Your task to perform on an android device: Play the new Ed Sheeran video on YouTube Image 0: 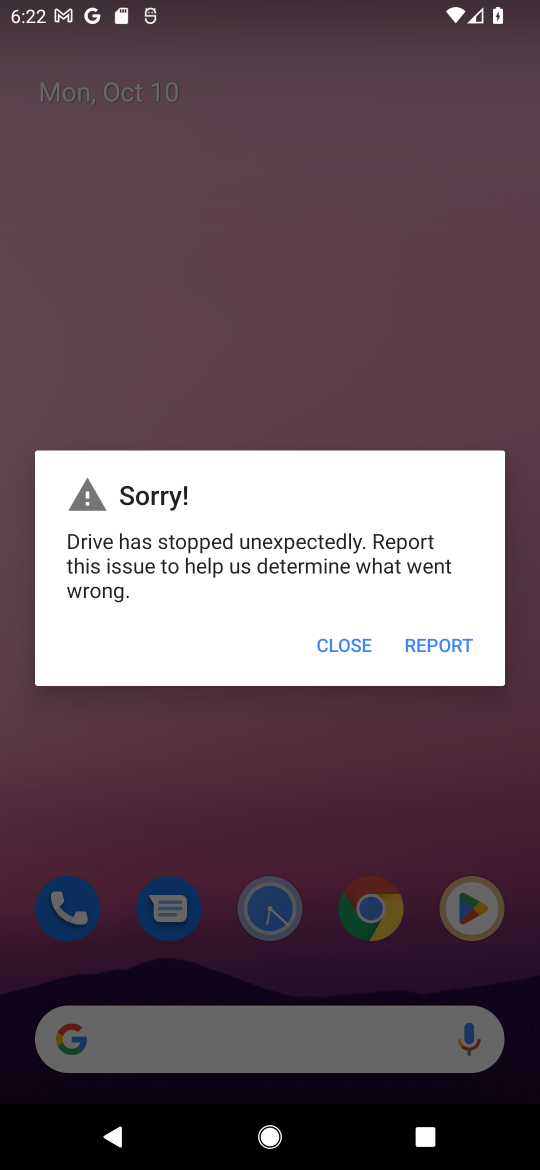
Step 0: press home button
Your task to perform on an android device: Play the new Ed Sheeran video on YouTube Image 1: 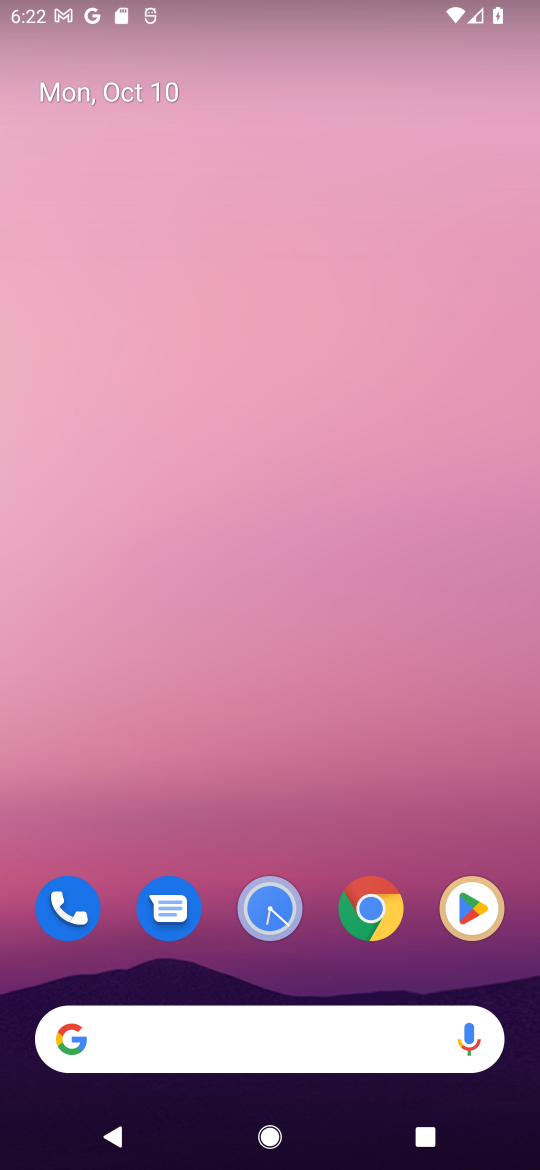
Step 1: drag from (316, 995) to (294, 21)
Your task to perform on an android device: Play the new Ed Sheeran video on YouTube Image 2: 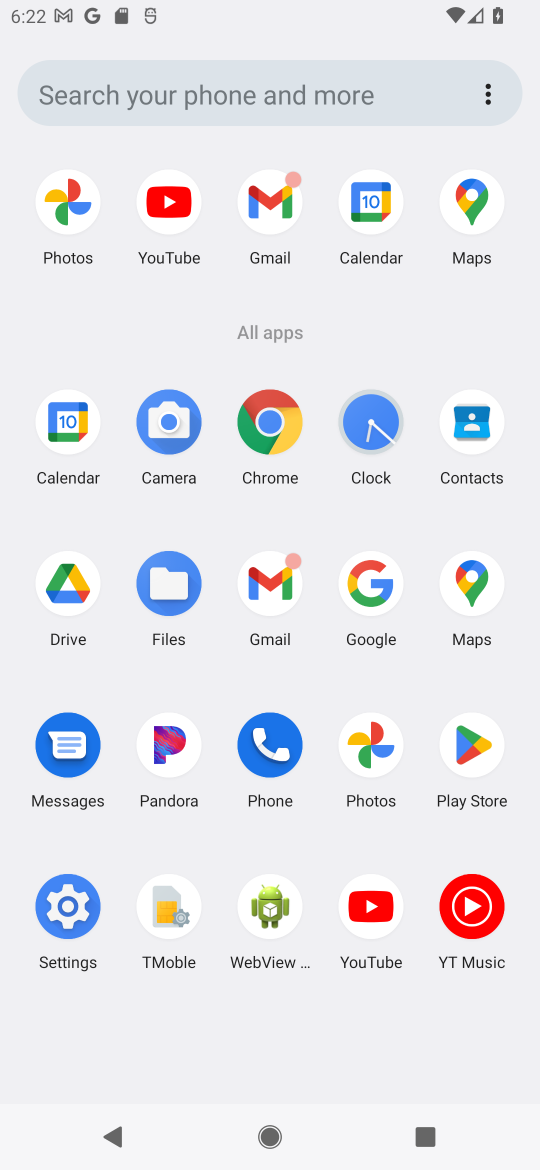
Step 2: click (165, 186)
Your task to perform on an android device: Play the new Ed Sheeran video on YouTube Image 3: 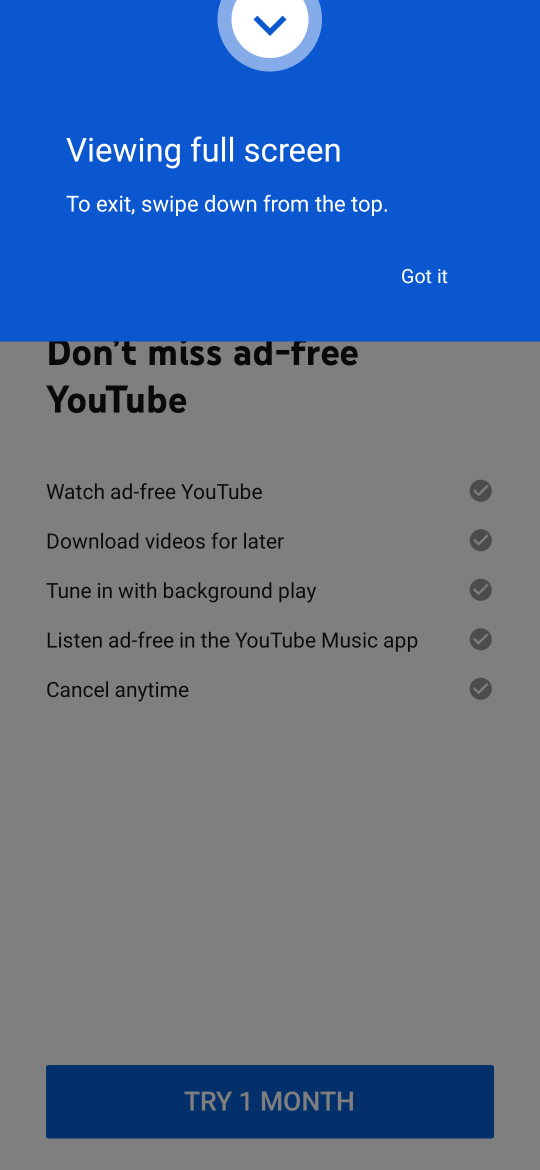
Step 3: press home button
Your task to perform on an android device: Play the new Ed Sheeran video on YouTube Image 4: 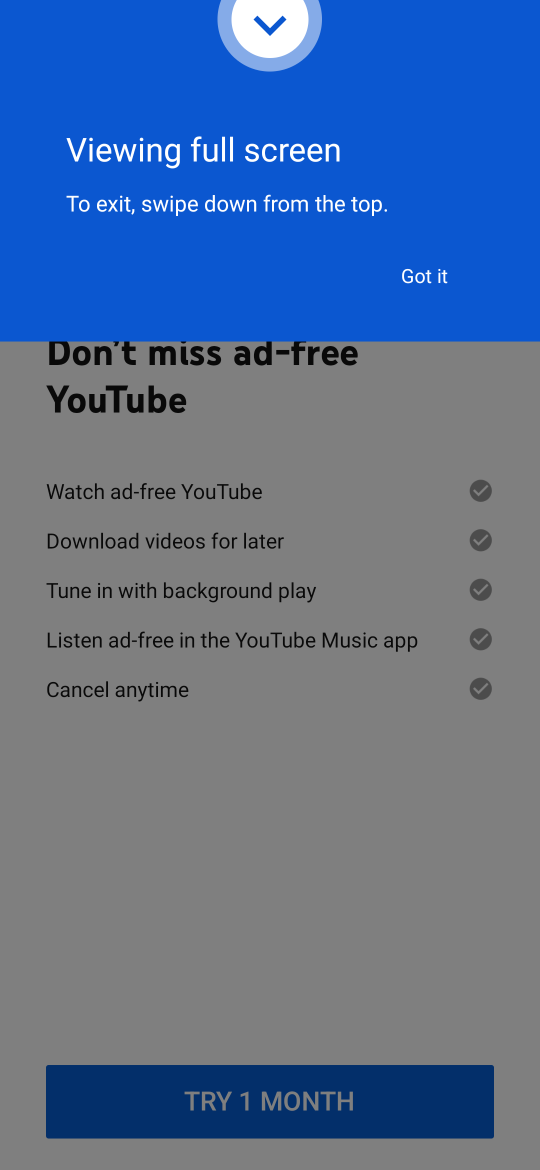
Step 4: press home button
Your task to perform on an android device: Play the new Ed Sheeran video on YouTube Image 5: 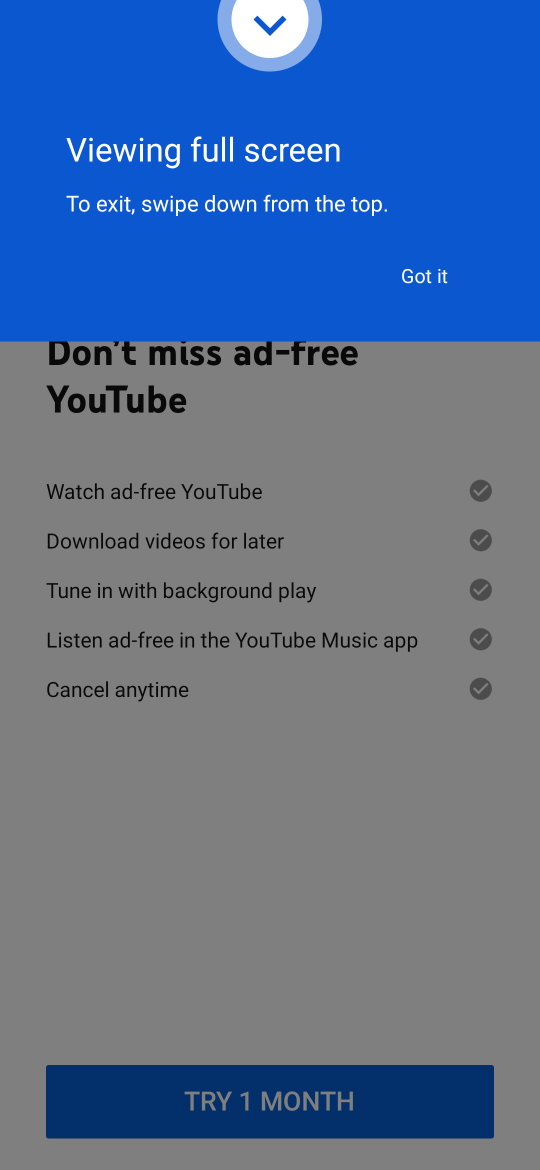
Step 5: press home button
Your task to perform on an android device: Play the new Ed Sheeran video on YouTube Image 6: 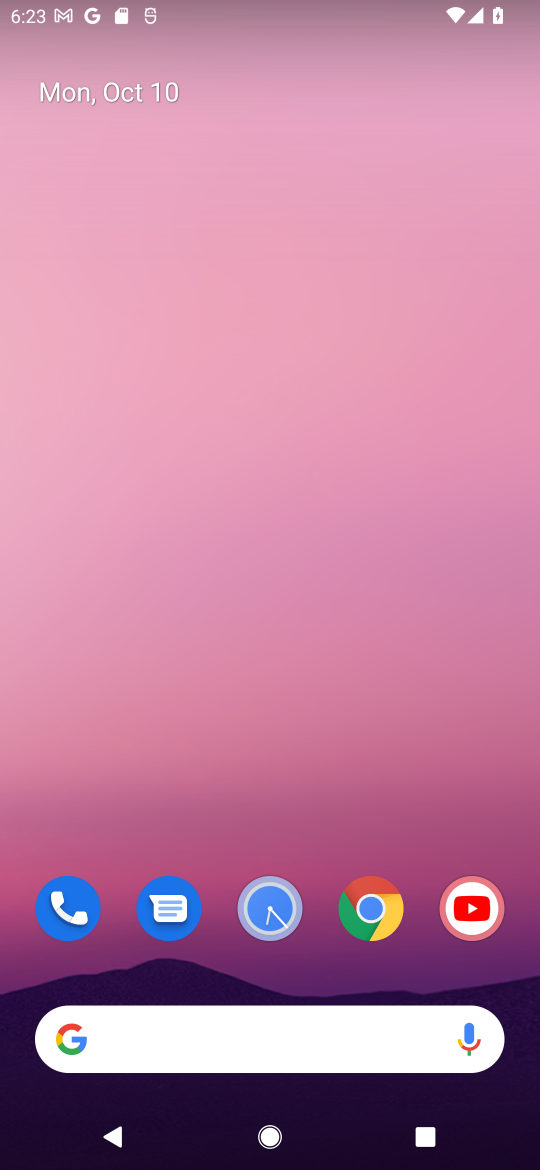
Step 6: drag from (328, 990) to (411, 9)
Your task to perform on an android device: Play the new Ed Sheeran video on YouTube Image 7: 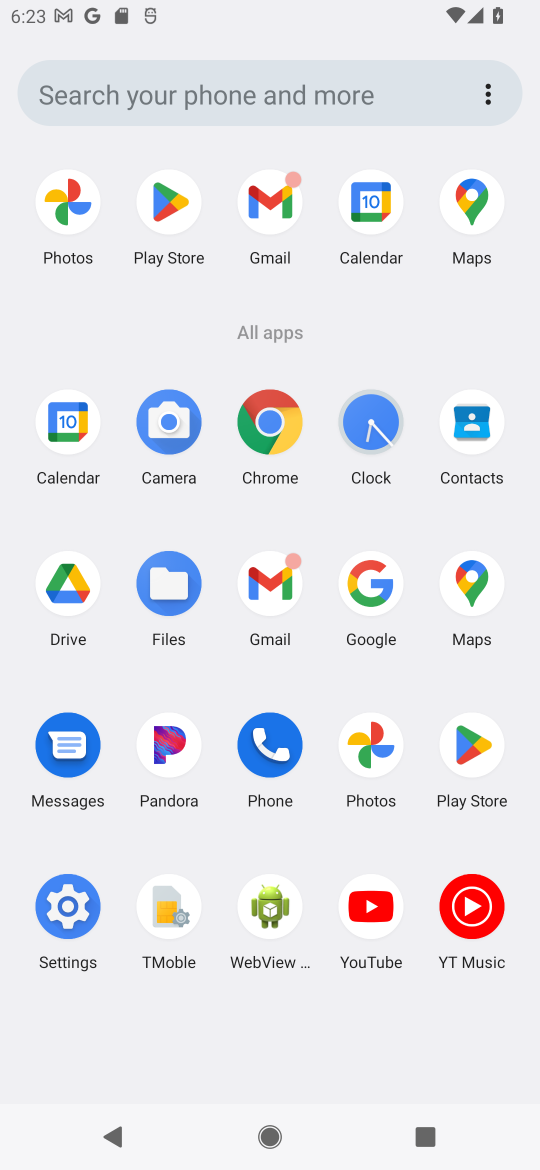
Step 7: click (382, 883)
Your task to perform on an android device: Play the new Ed Sheeran video on YouTube Image 8: 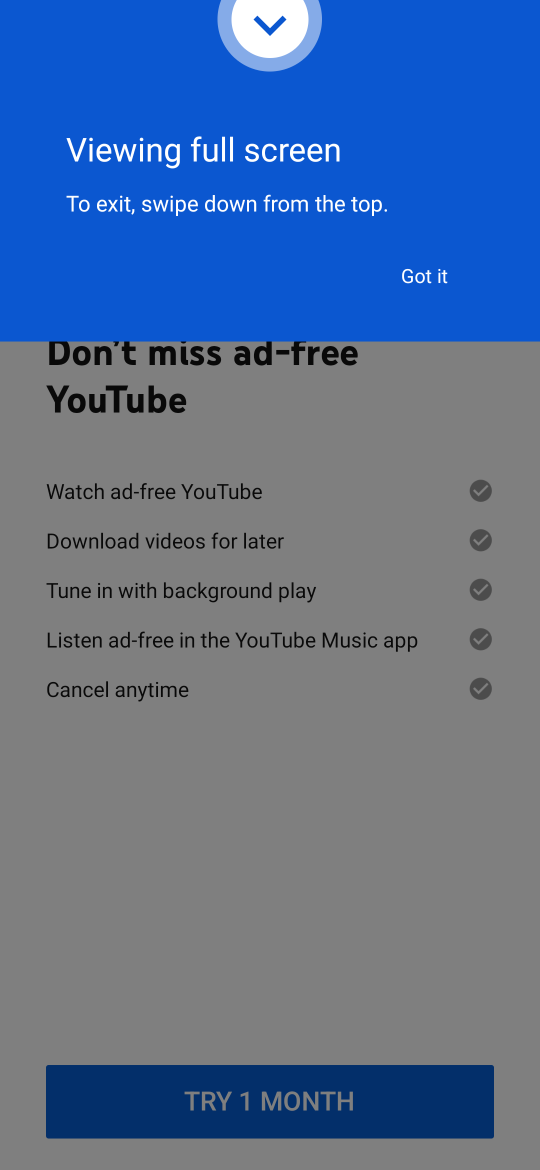
Step 8: click (422, 287)
Your task to perform on an android device: Play the new Ed Sheeran video on YouTube Image 9: 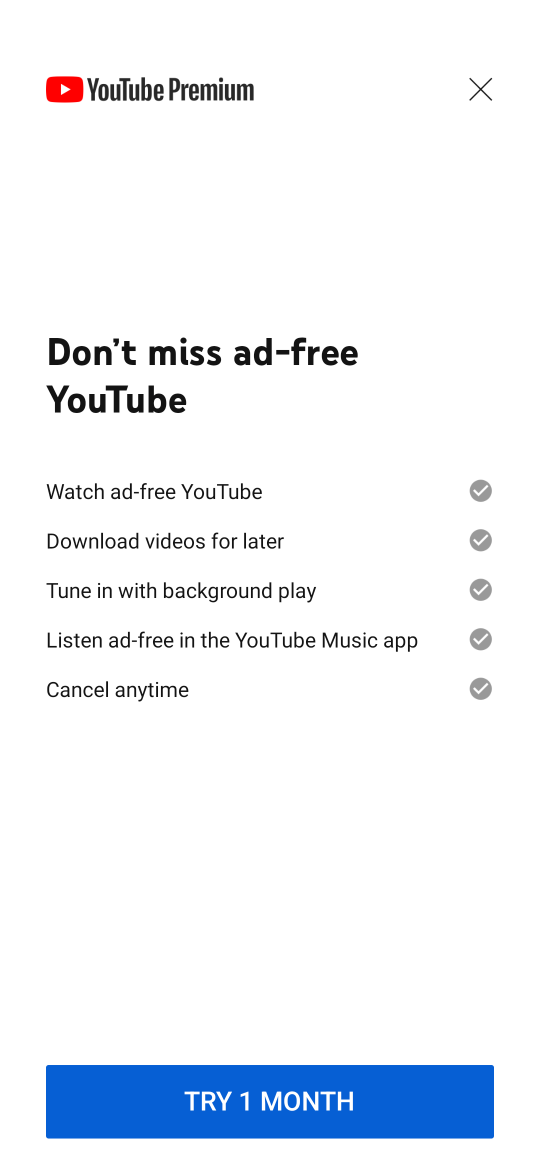
Step 9: click (474, 89)
Your task to perform on an android device: Play the new Ed Sheeran video on YouTube Image 10: 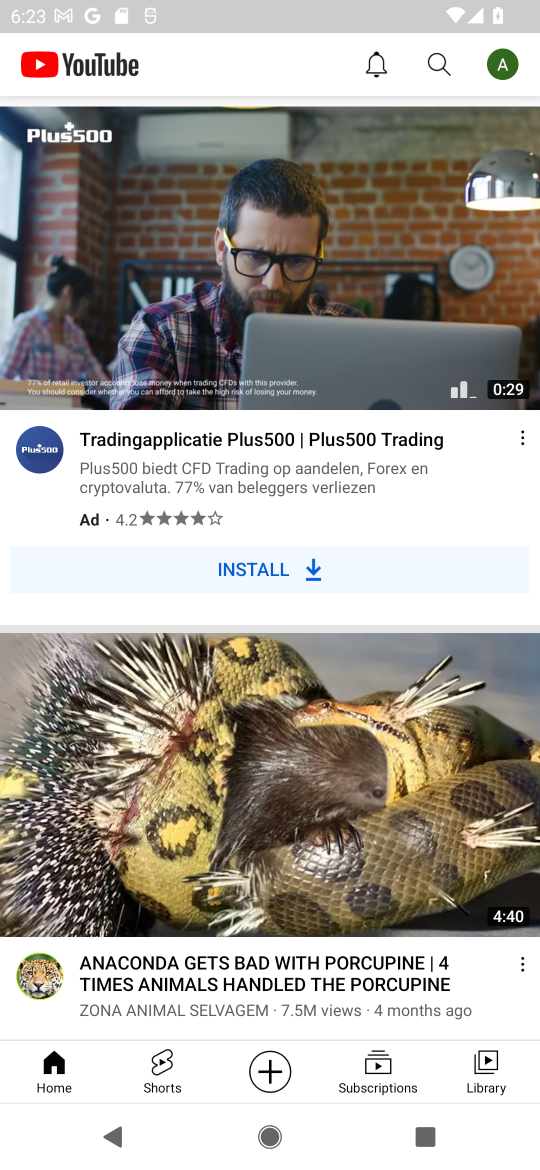
Step 10: click (427, 60)
Your task to perform on an android device: Play the new Ed Sheeran video on YouTube Image 11: 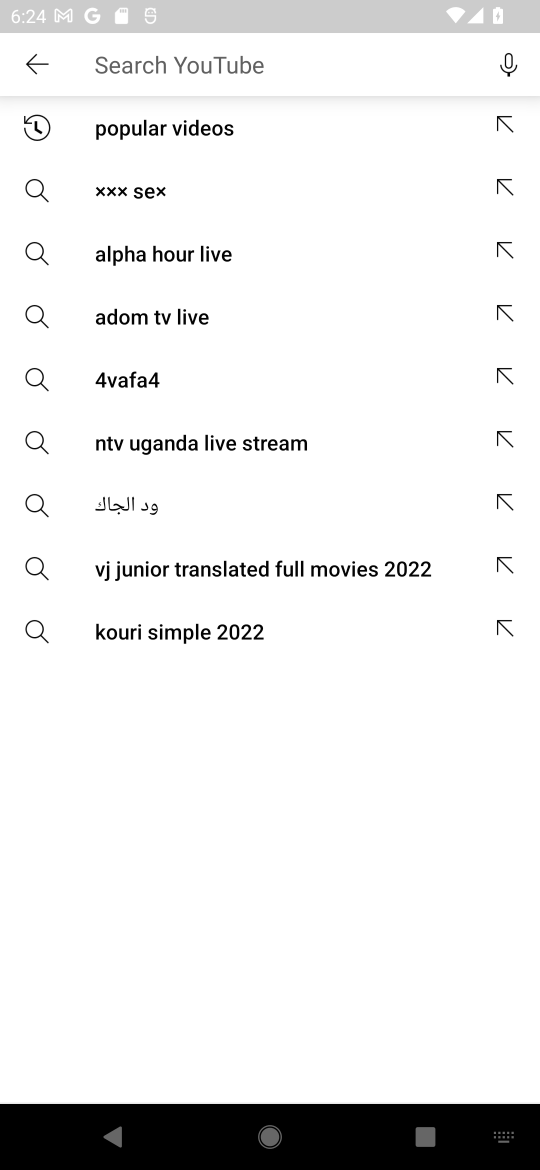
Step 11: type "Ed Sheeran"
Your task to perform on an android device: Play the new Ed Sheeran video on YouTube Image 12: 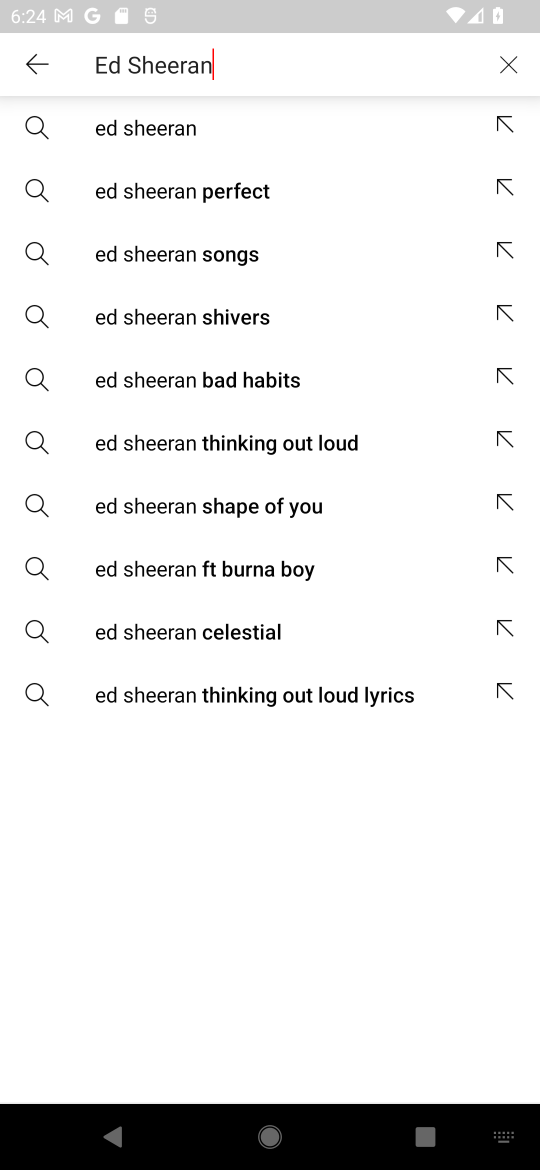
Step 12: press enter
Your task to perform on an android device: Play the new Ed Sheeran video on YouTube Image 13: 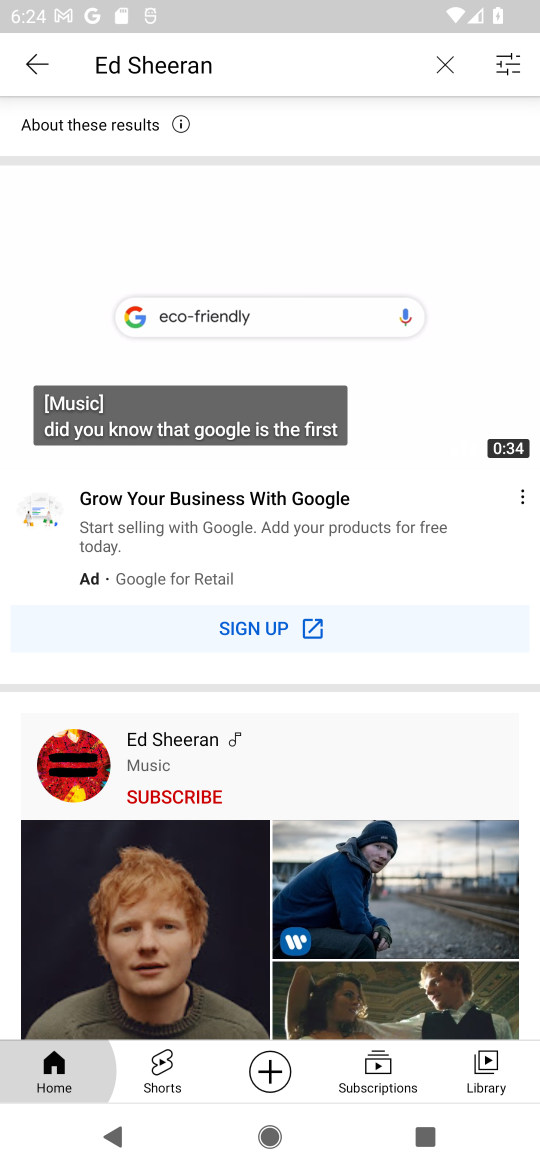
Step 13: click (146, 737)
Your task to perform on an android device: Play the new Ed Sheeran video on YouTube Image 14: 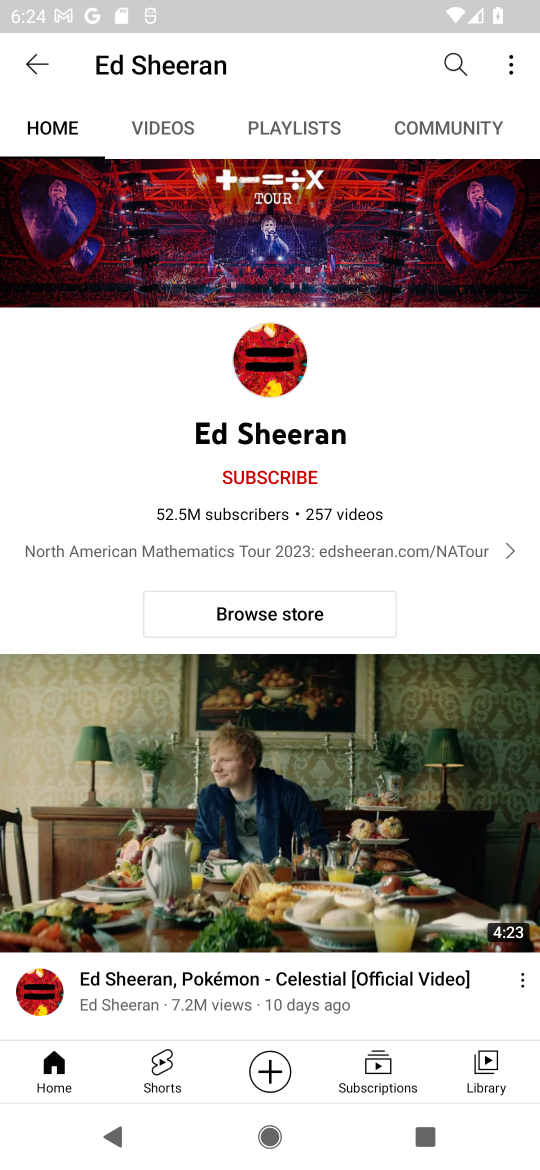
Step 14: drag from (197, 629) to (236, 207)
Your task to perform on an android device: Play the new Ed Sheeran video on YouTube Image 15: 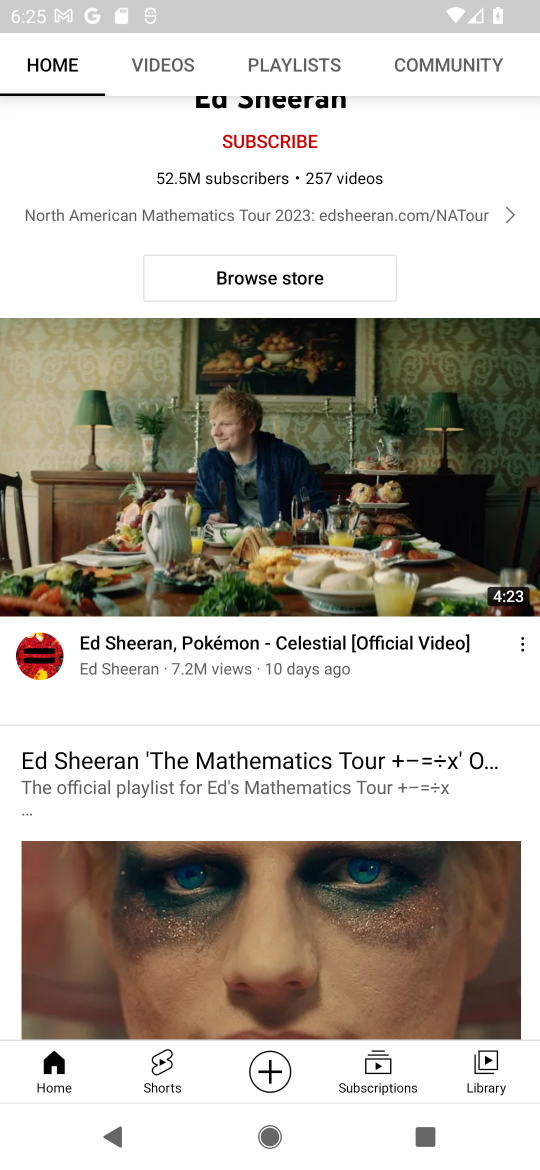
Step 15: drag from (239, 363) to (247, 603)
Your task to perform on an android device: Play the new Ed Sheeran video on YouTube Image 16: 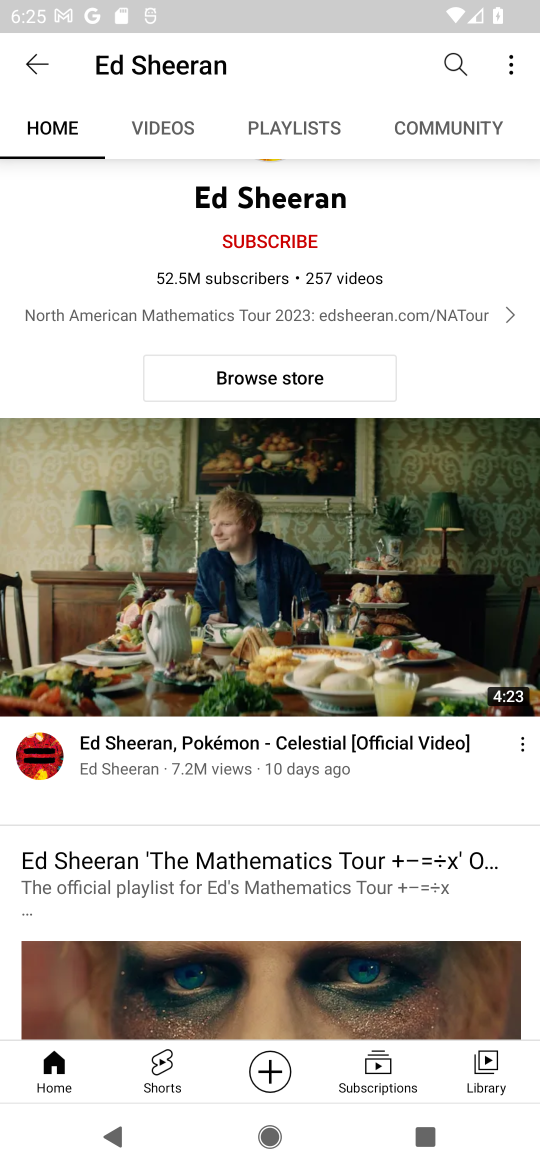
Step 16: click (153, 122)
Your task to perform on an android device: Play the new Ed Sheeran video on YouTube Image 17: 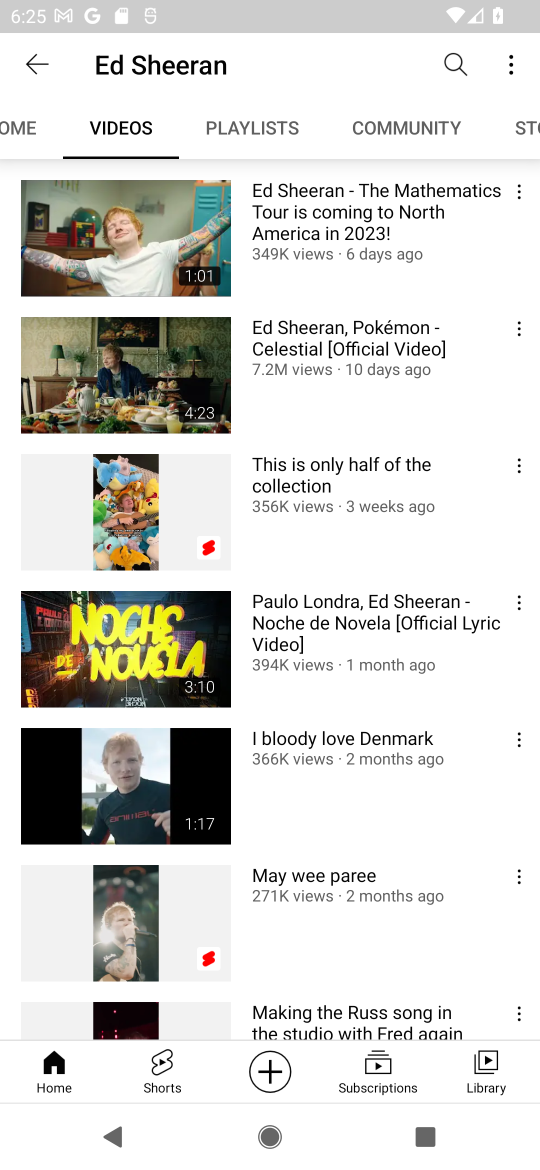
Step 17: click (184, 232)
Your task to perform on an android device: Play the new Ed Sheeran video on YouTube Image 18: 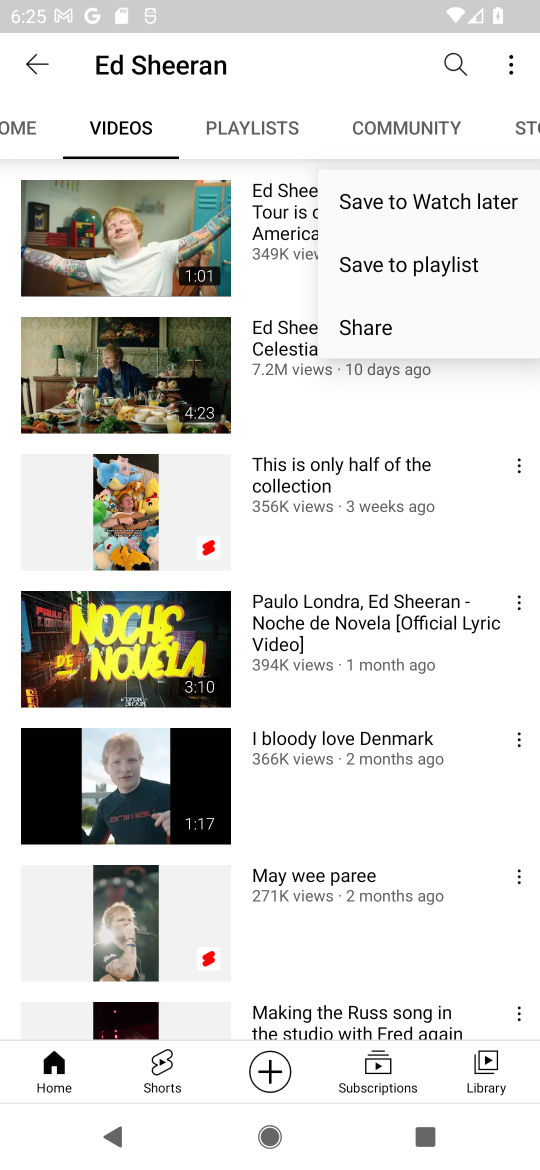
Step 18: click (281, 211)
Your task to perform on an android device: Play the new Ed Sheeran video on YouTube Image 19: 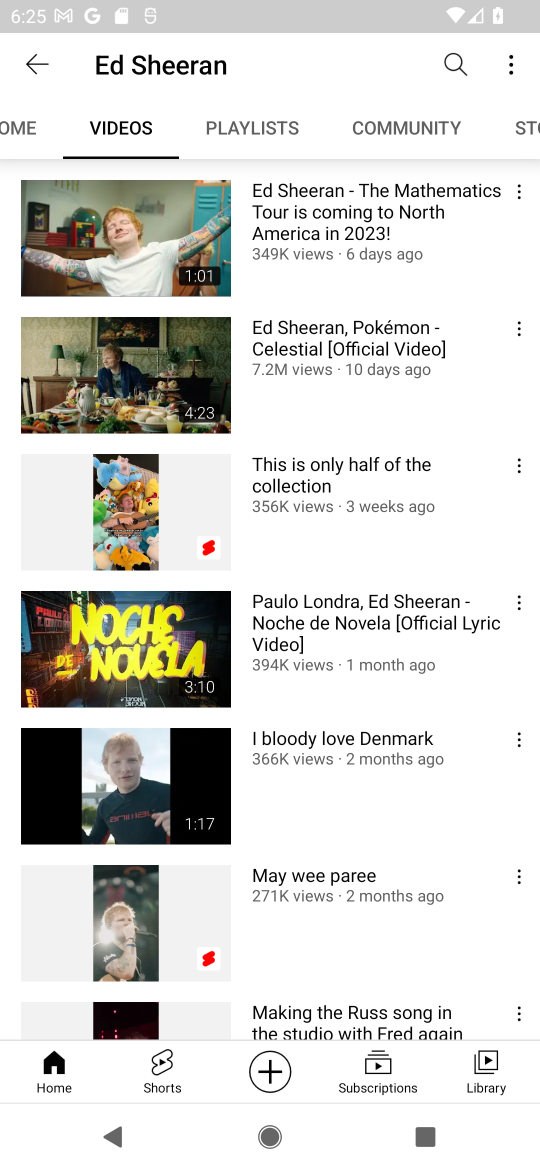
Step 19: click (184, 213)
Your task to perform on an android device: Play the new Ed Sheeran video on YouTube Image 20: 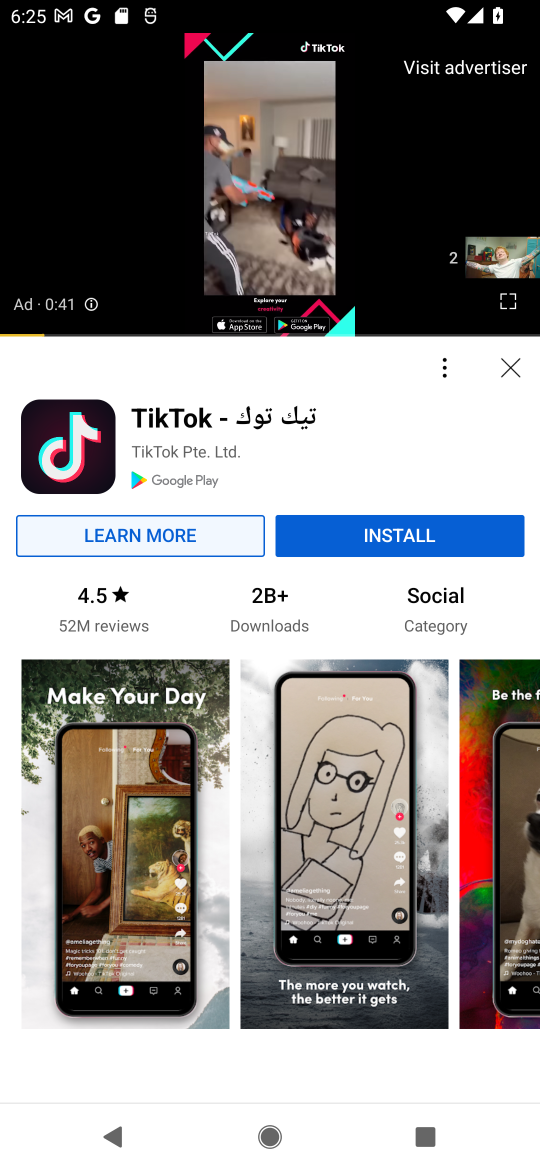
Step 20: task complete